Your task to perform on an android device: Open Yahoo.com Image 0: 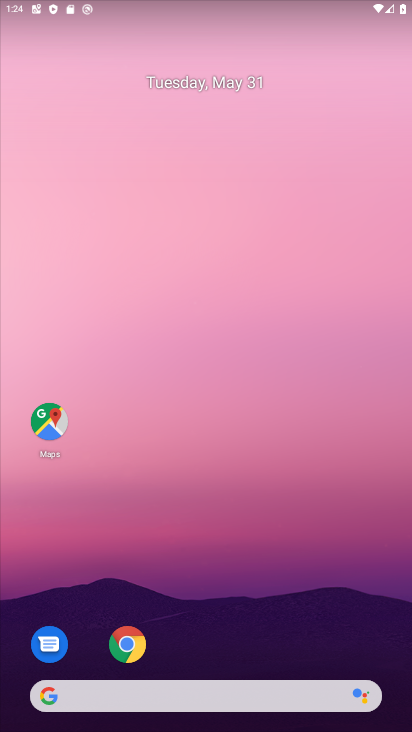
Step 0: click (132, 642)
Your task to perform on an android device: Open Yahoo.com Image 1: 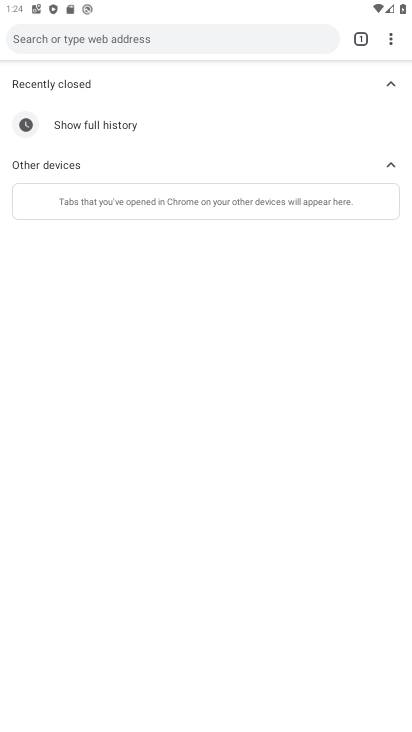
Step 1: click (198, 31)
Your task to perform on an android device: Open Yahoo.com Image 2: 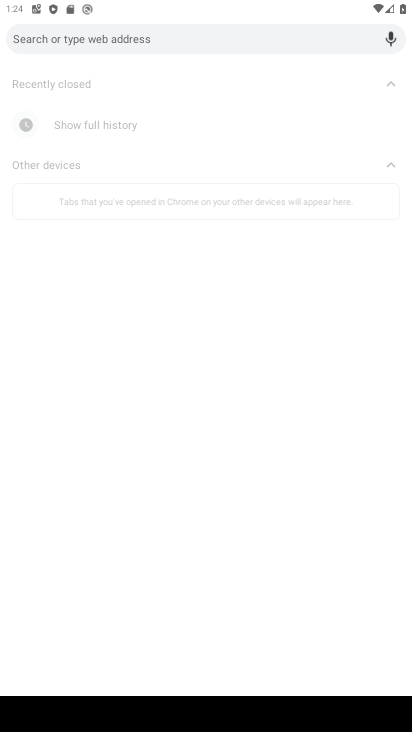
Step 2: type "Yahoo.com"
Your task to perform on an android device: Open Yahoo.com Image 3: 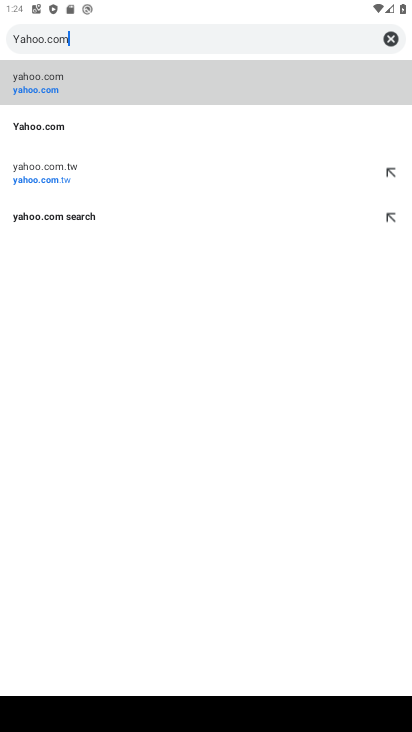
Step 3: click (20, 124)
Your task to perform on an android device: Open Yahoo.com Image 4: 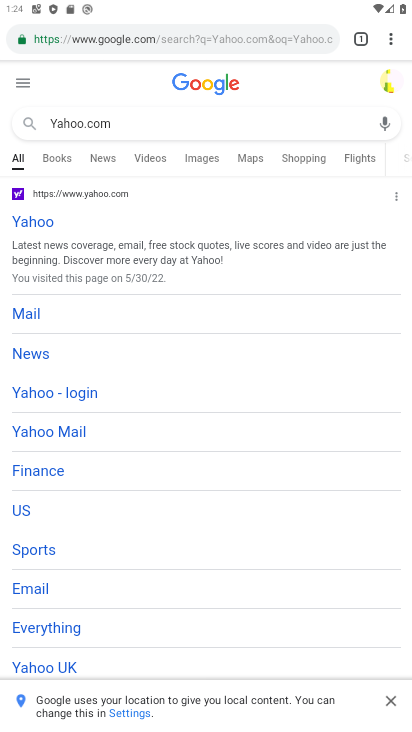
Step 4: task complete